Your task to perform on an android device: Go to settings Image 0: 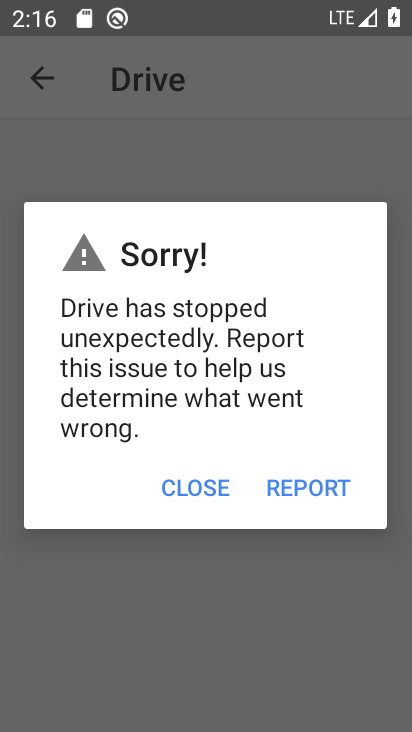
Step 0: click (209, 496)
Your task to perform on an android device: Go to settings Image 1: 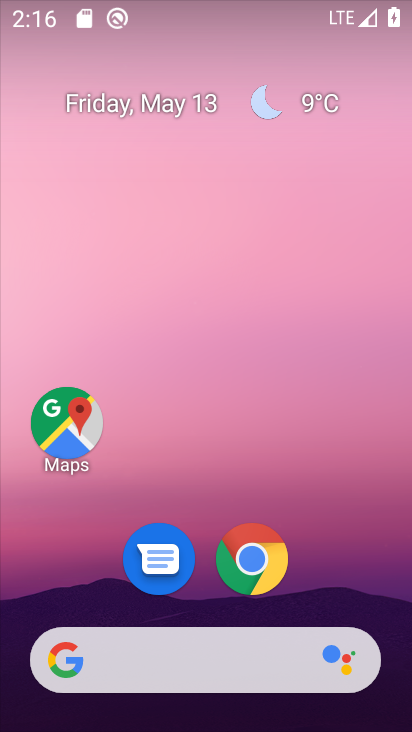
Step 1: click (349, 409)
Your task to perform on an android device: Go to settings Image 2: 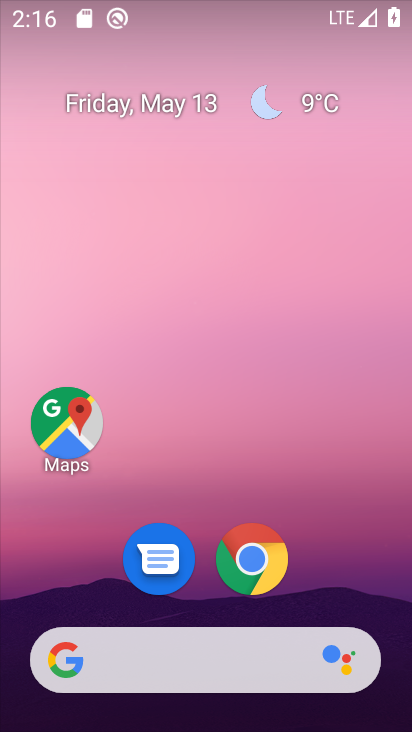
Step 2: drag from (382, 209) to (379, 157)
Your task to perform on an android device: Go to settings Image 3: 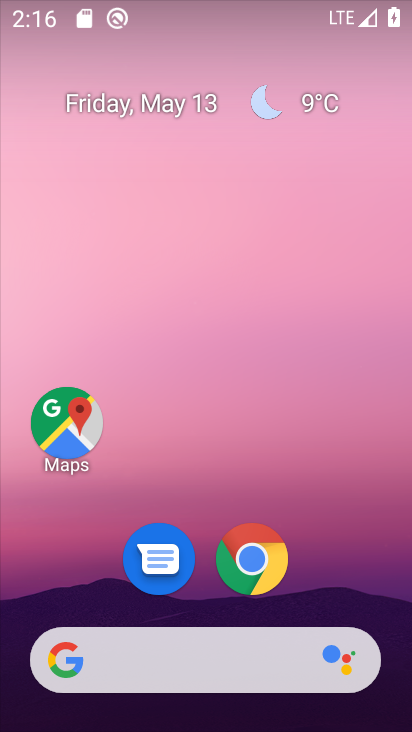
Step 3: click (363, 267)
Your task to perform on an android device: Go to settings Image 4: 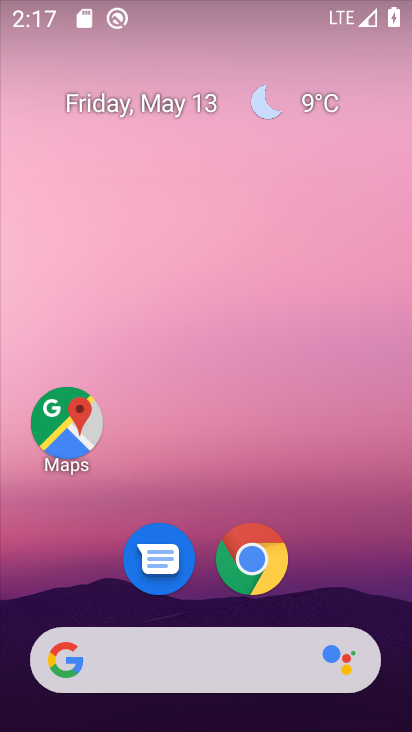
Step 4: click (348, 332)
Your task to perform on an android device: Go to settings Image 5: 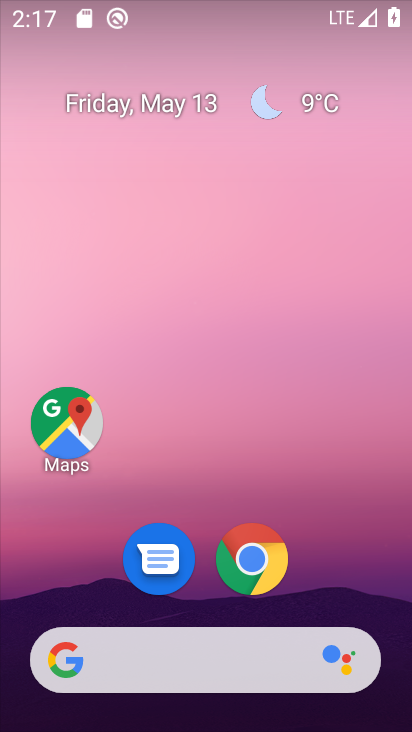
Step 5: click (357, 239)
Your task to perform on an android device: Go to settings Image 6: 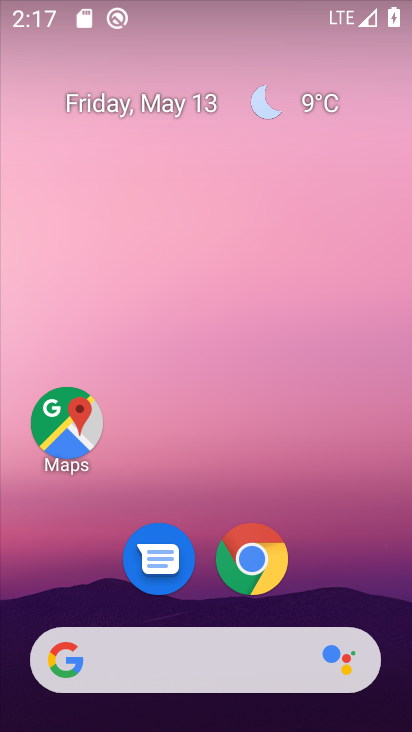
Step 6: drag from (409, 525) to (406, 376)
Your task to perform on an android device: Go to settings Image 7: 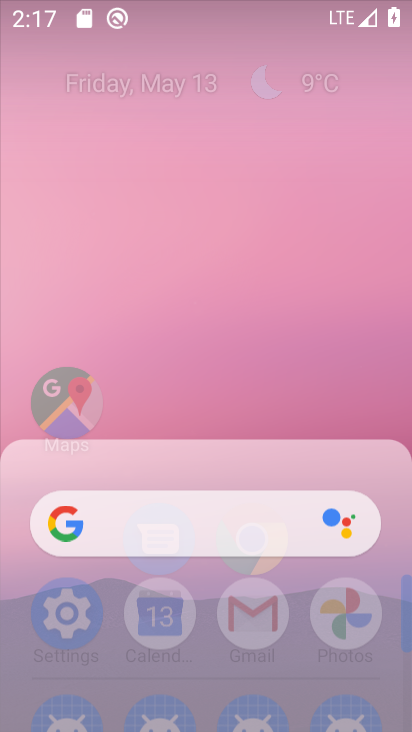
Step 7: click (375, 193)
Your task to perform on an android device: Go to settings Image 8: 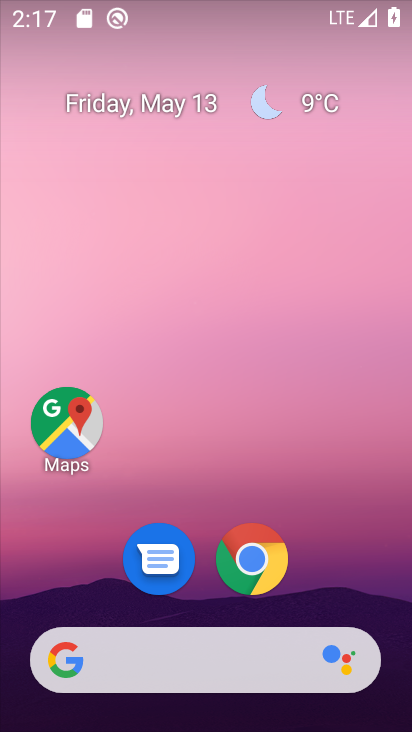
Step 8: click (345, 232)
Your task to perform on an android device: Go to settings Image 9: 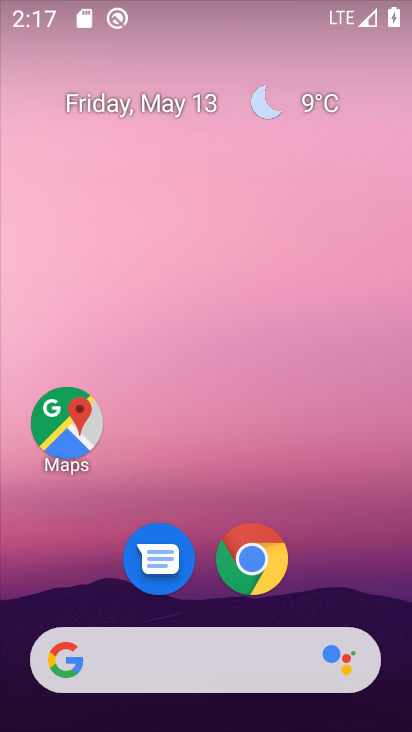
Step 9: drag from (375, 296) to (366, 226)
Your task to perform on an android device: Go to settings Image 10: 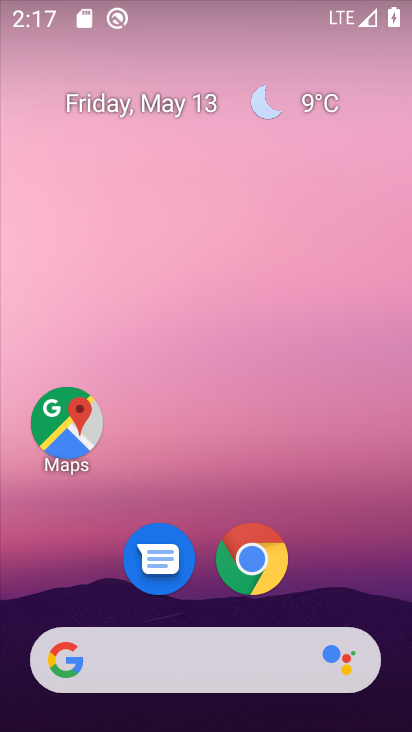
Step 10: drag from (396, 647) to (372, 172)
Your task to perform on an android device: Go to settings Image 11: 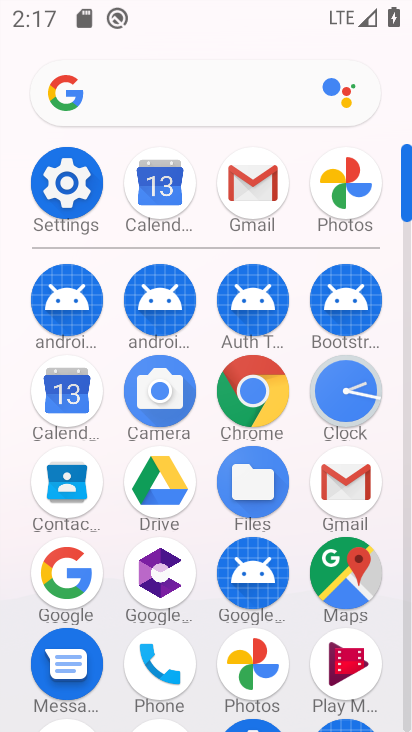
Step 11: click (60, 183)
Your task to perform on an android device: Go to settings Image 12: 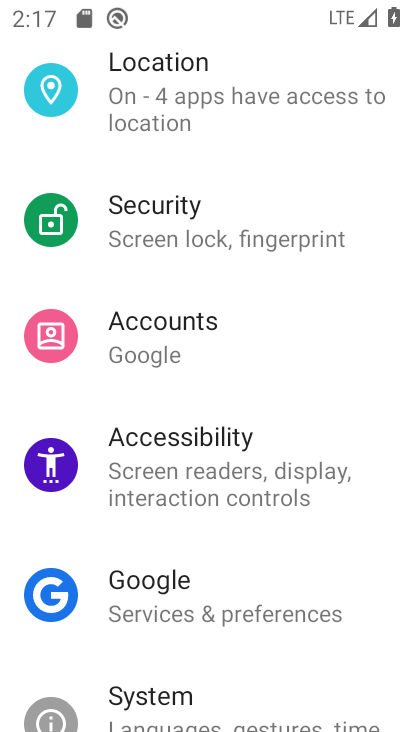
Step 12: task complete